Your task to perform on an android device: allow cookies in the chrome app Image 0: 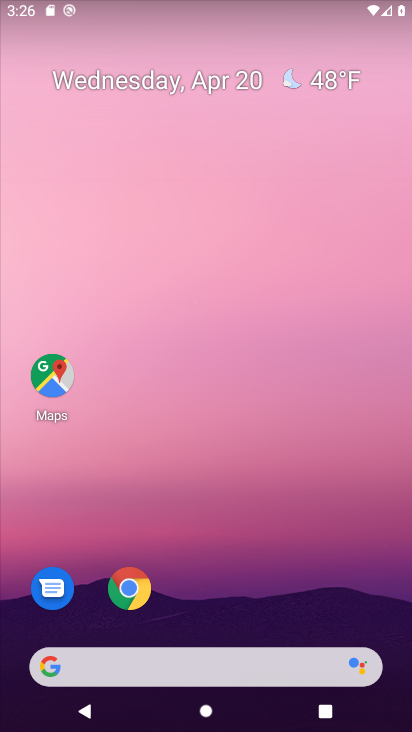
Step 0: drag from (335, 493) to (235, 82)
Your task to perform on an android device: allow cookies in the chrome app Image 1: 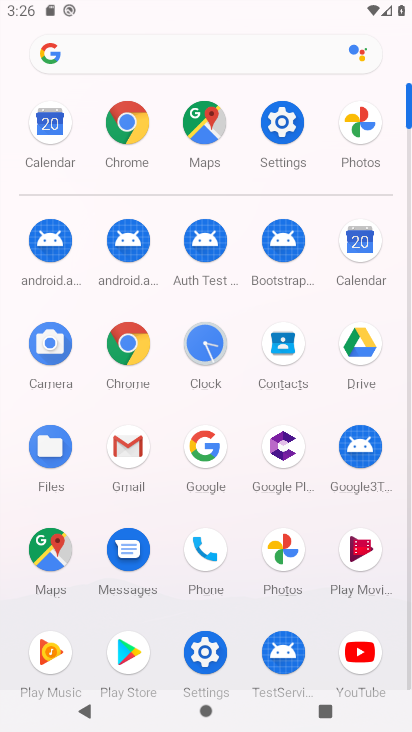
Step 1: click (122, 347)
Your task to perform on an android device: allow cookies in the chrome app Image 2: 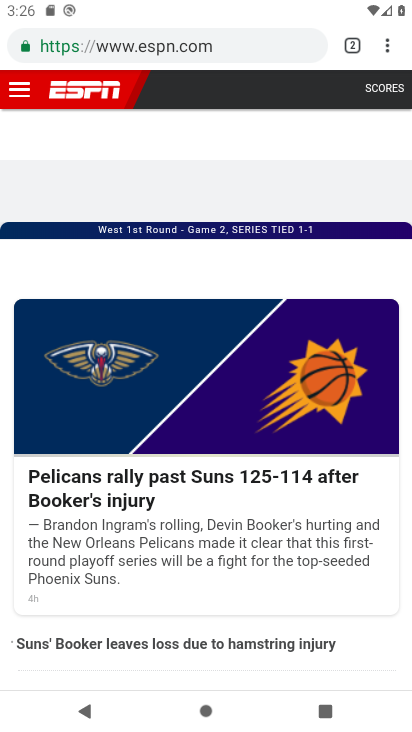
Step 2: click (388, 42)
Your task to perform on an android device: allow cookies in the chrome app Image 3: 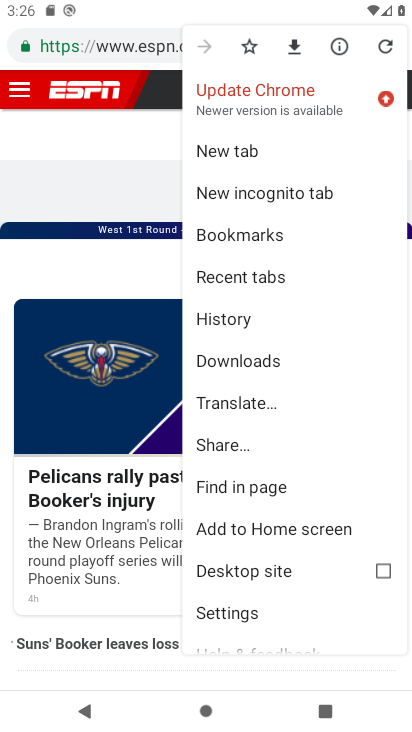
Step 3: click (252, 617)
Your task to perform on an android device: allow cookies in the chrome app Image 4: 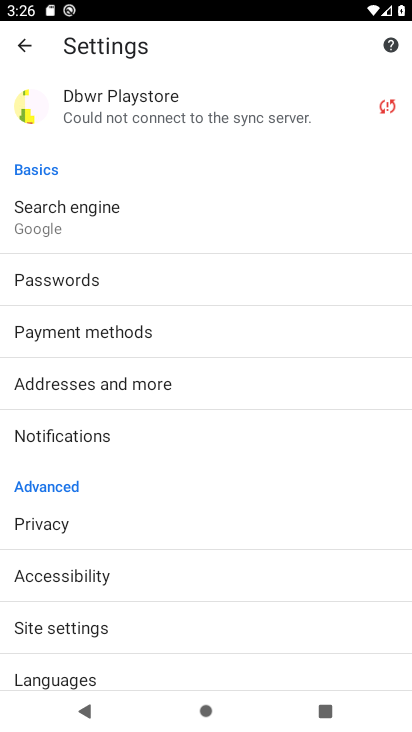
Step 4: drag from (257, 583) to (275, 412)
Your task to perform on an android device: allow cookies in the chrome app Image 5: 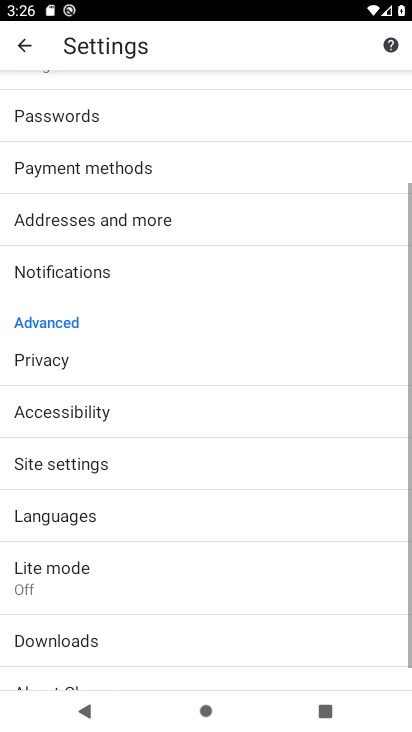
Step 5: drag from (278, 589) to (299, 423)
Your task to perform on an android device: allow cookies in the chrome app Image 6: 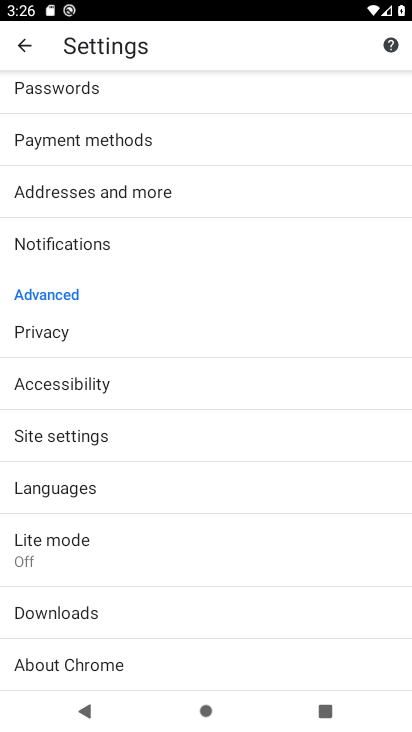
Step 6: click (177, 436)
Your task to perform on an android device: allow cookies in the chrome app Image 7: 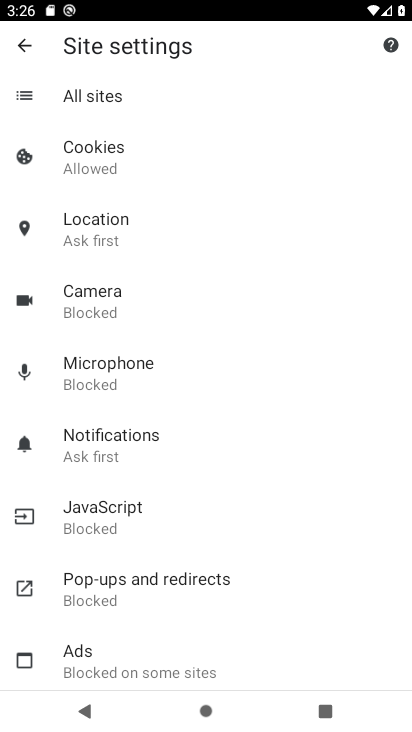
Step 7: drag from (280, 353) to (297, 421)
Your task to perform on an android device: allow cookies in the chrome app Image 8: 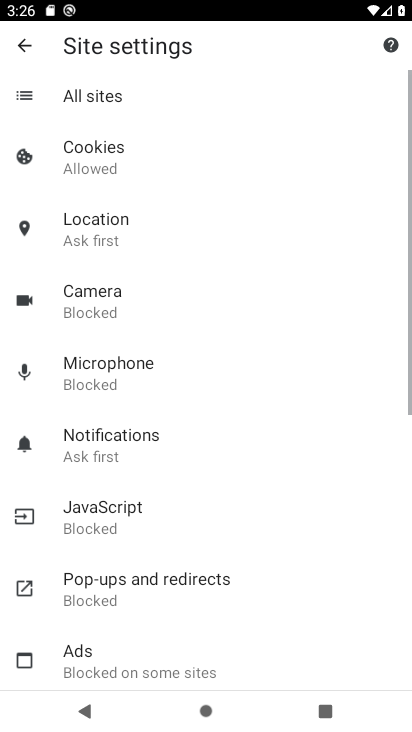
Step 8: drag from (306, 526) to (334, 373)
Your task to perform on an android device: allow cookies in the chrome app Image 9: 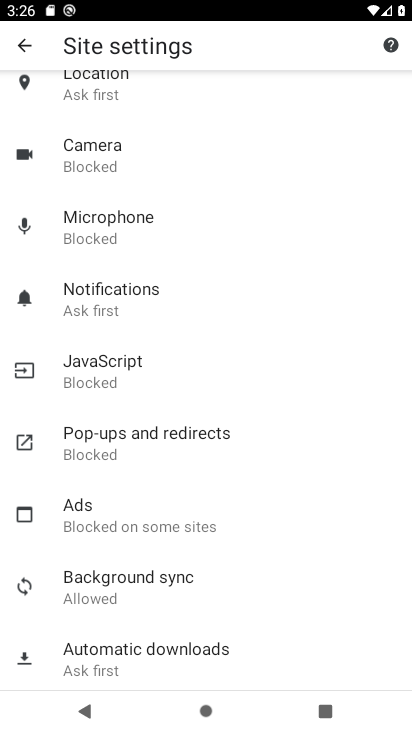
Step 9: drag from (330, 606) to (277, 432)
Your task to perform on an android device: allow cookies in the chrome app Image 10: 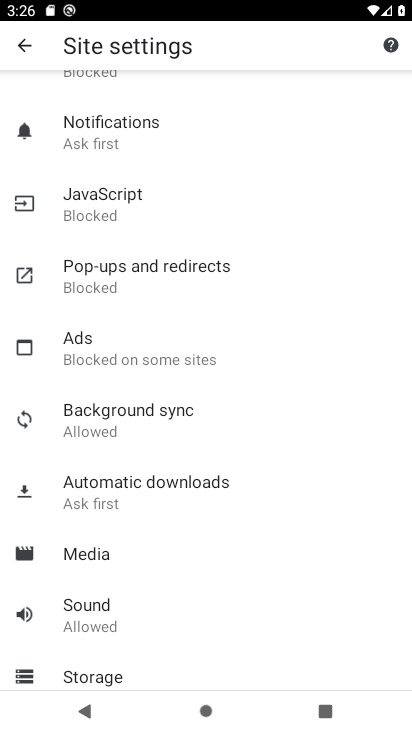
Step 10: drag from (284, 565) to (268, 358)
Your task to perform on an android device: allow cookies in the chrome app Image 11: 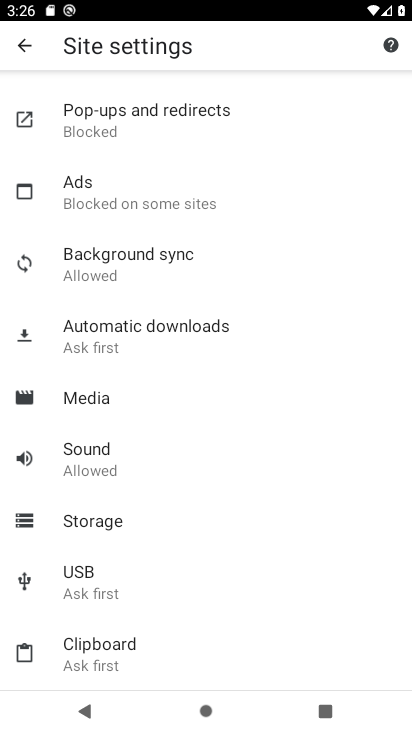
Step 11: drag from (294, 289) to (316, 490)
Your task to perform on an android device: allow cookies in the chrome app Image 12: 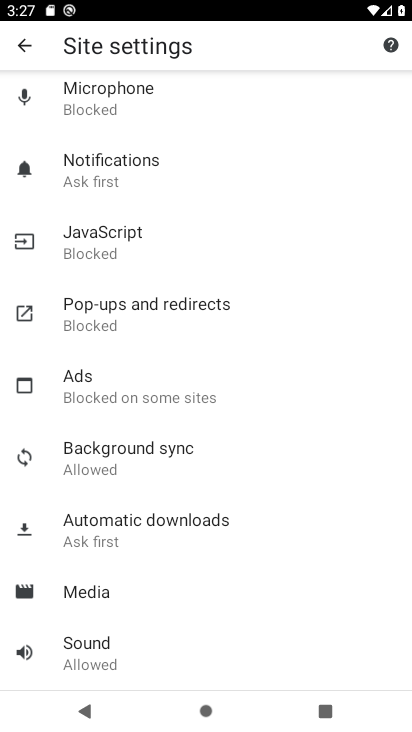
Step 12: drag from (303, 271) to (302, 542)
Your task to perform on an android device: allow cookies in the chrome app Image 13: 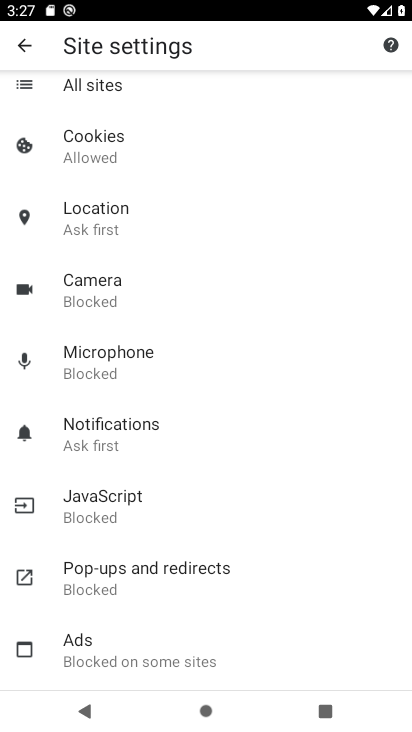
Step 13: click (67, 144)
Your task to perform on an android device: allow cookies in the chrome app Image 14: 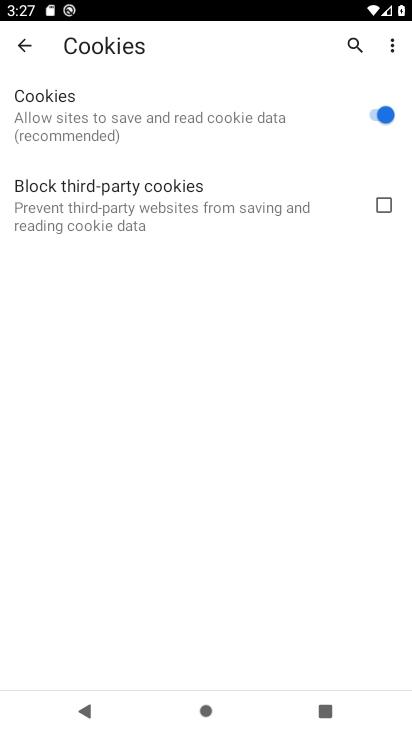
Step 14: task complete